Your task to perform on an android device: turn off data saver in the chrome app Image 0: 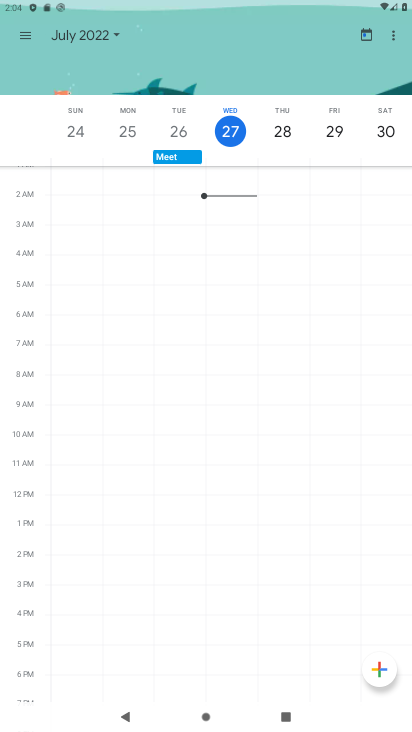
Step 0: press home button
Your task to perform on an android device: turn off data saver in the chrome app Image 1: 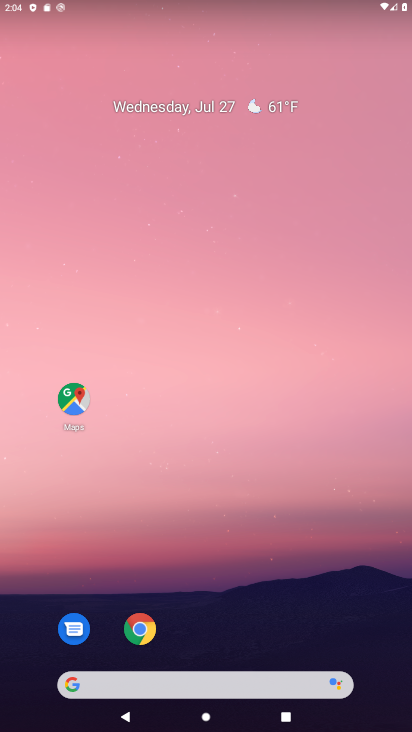
Step 1: click (139, 631)
Your task to perform on an android device: turn off data saver in the chrome app Image 2: 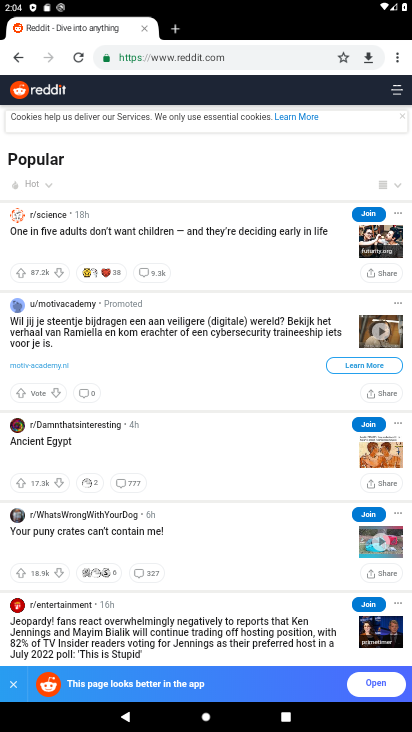
Step 2: click (396, 57)
Your task to perform on an android device: turn off data saver in the chrome app Image 3: 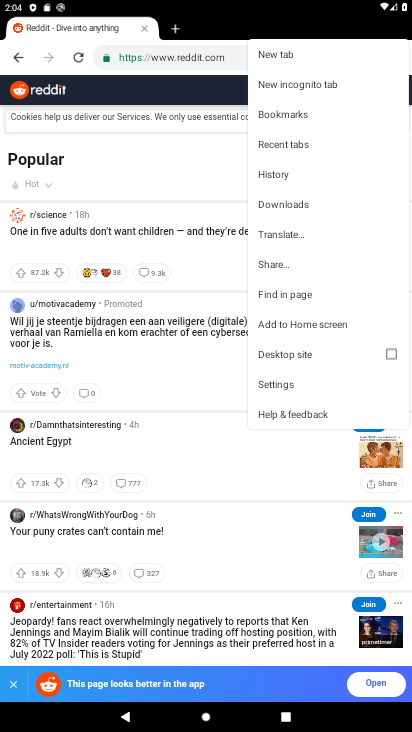
Step 3: click (282, 385)
Your task to perform on an android device: turn off data saver in the chrome app Image 4: 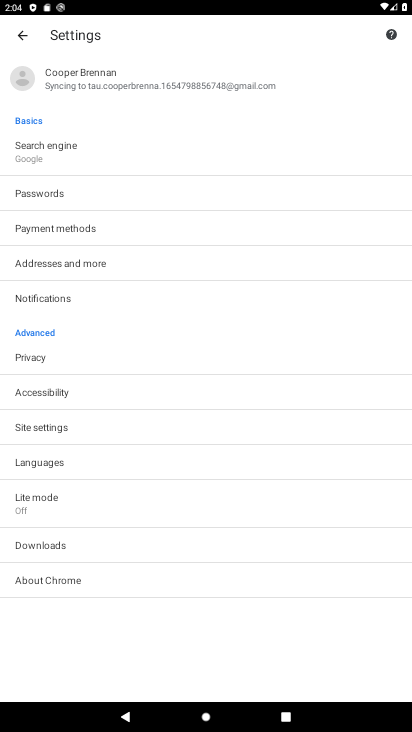
Step 4: click (41, 501)
Your task to perform on an android device: turn off data saver in the chrome app Image 5: 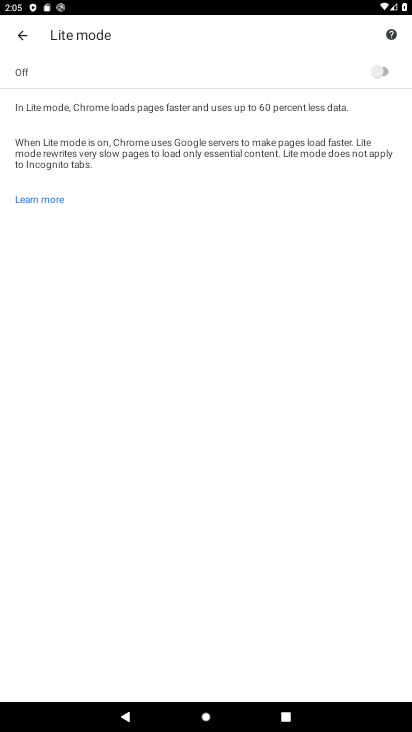
Step 5: task complete